Your task to perform on an android device: Check the news Image 0: 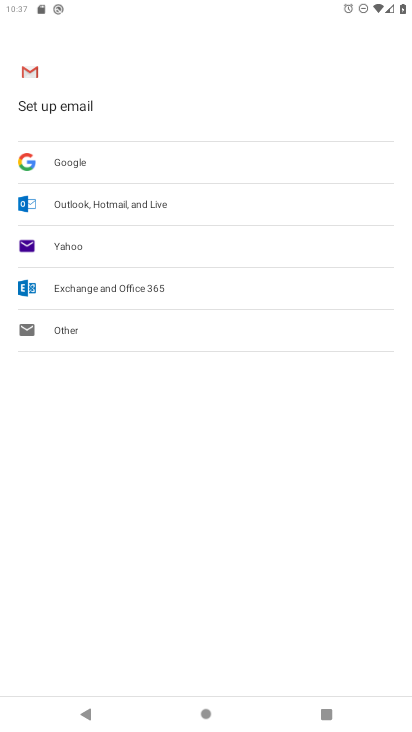
Step 0: press home button
Your task to perform on an android device: Check the news Image 1: 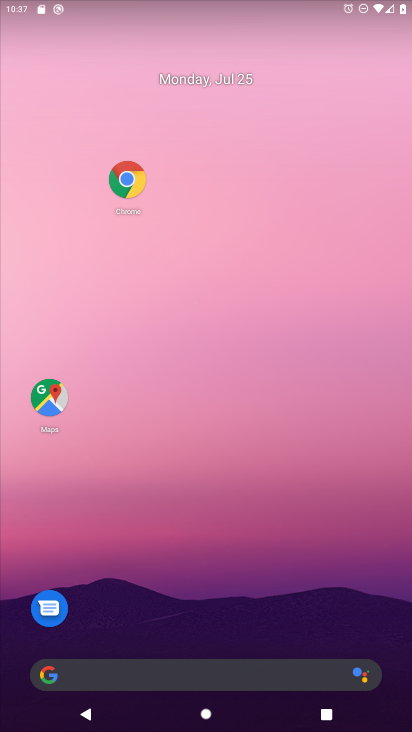
Step 1: click (201, 673)
Your task to perform on an android device: Check the news Image 2: 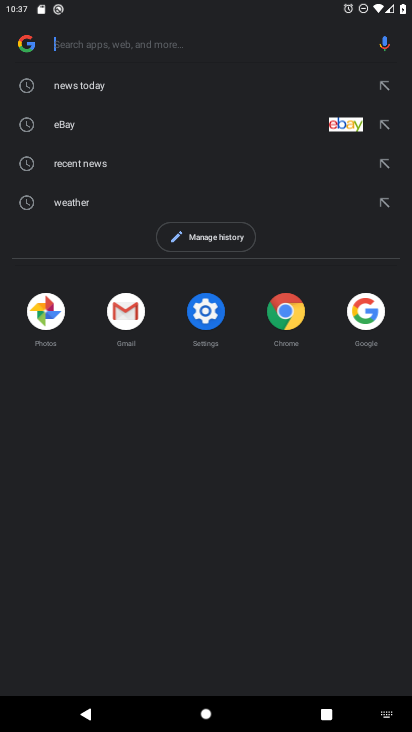
Step 2: type "check the news"
Your task to perform on an android device: Check the news Image 3: 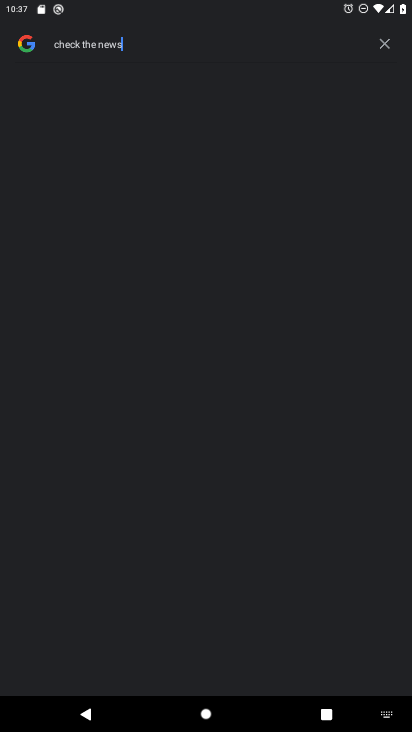
Step 3: press enter
Your task to perform on an android device: Check the news Image 4: 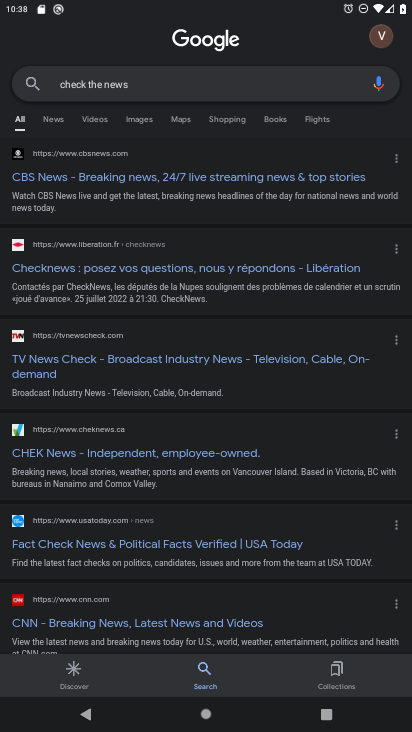
Step 4: click (67, 179)
Your task to perform on an android device: Check the news Image 5: 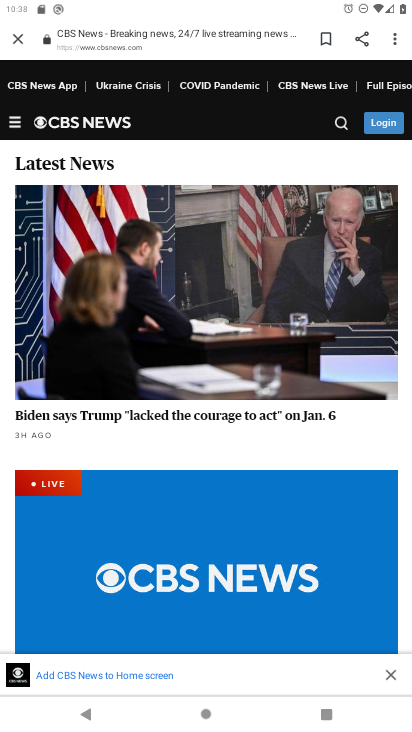
Step 5: task complete